Your task to perform on an android device: Go to accessibility settings Image 0: 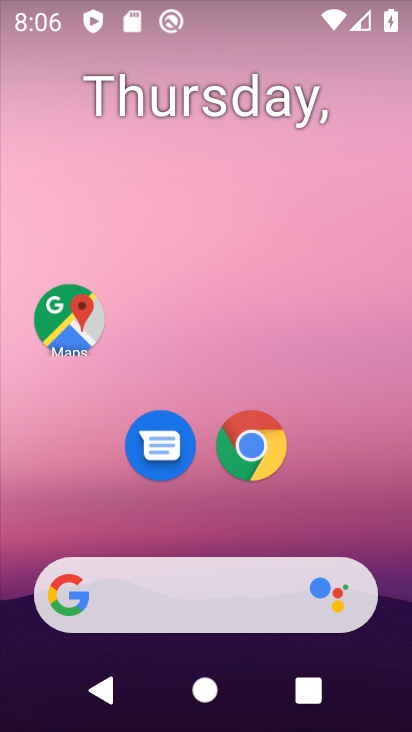
Step 0: drag from (357, 523) to (343, 0)
Your task to perform on an android device: Go to accessibility settings Image 1: 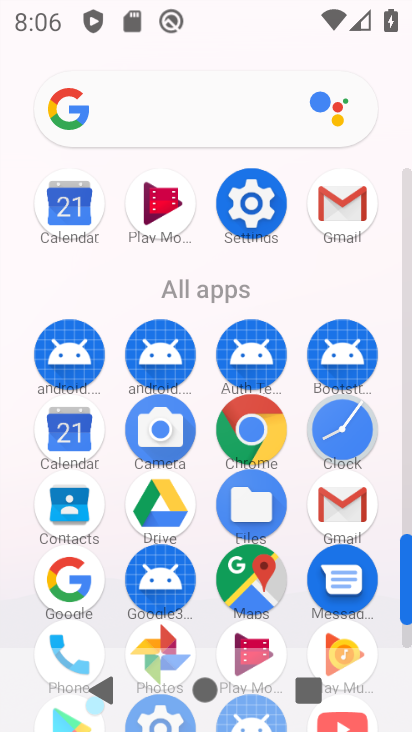
Step 1: click (252, 208)
Your task to perform on an android device: Go to accessibility settings Image 2: 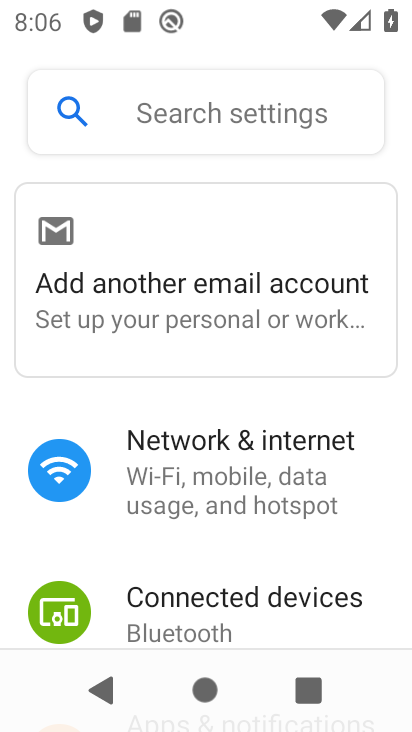
Step 2: drag from (364, 615) to (349, 171)
Your task to perform on an android device: Go to accessibility settings Image 3: 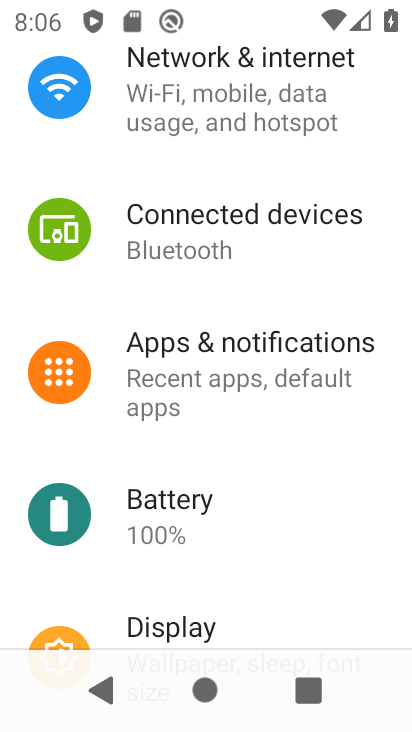
Step 3: drag from (326, 506) to (301, 70)
Your task to perform on an android device: Go to accessibility settings Image 4: 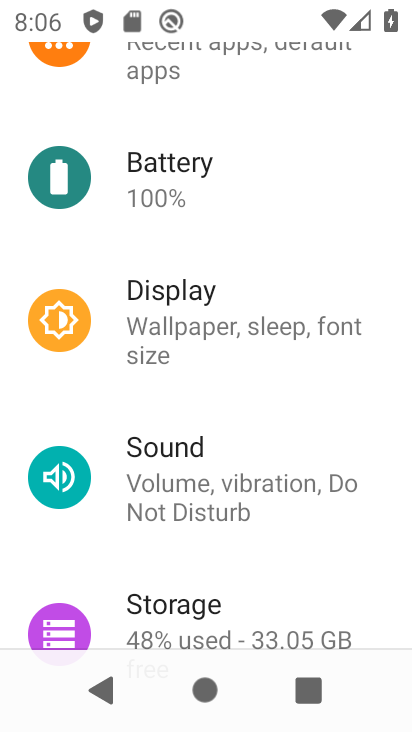
Step 4: drag from (298, 462) to (288, 74)
Your task to perform on an android device: Go to accessibility settings Image 5: 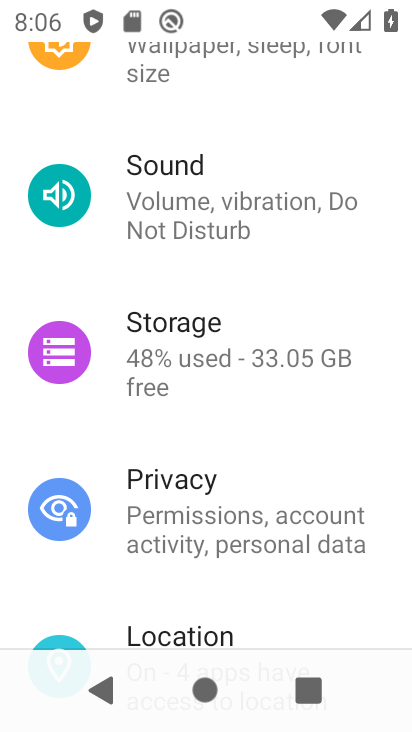
Step 5: drag from (265, 412) to (255, 42)
Your task to perform on an android device: Go to accessibility settings Image 6: 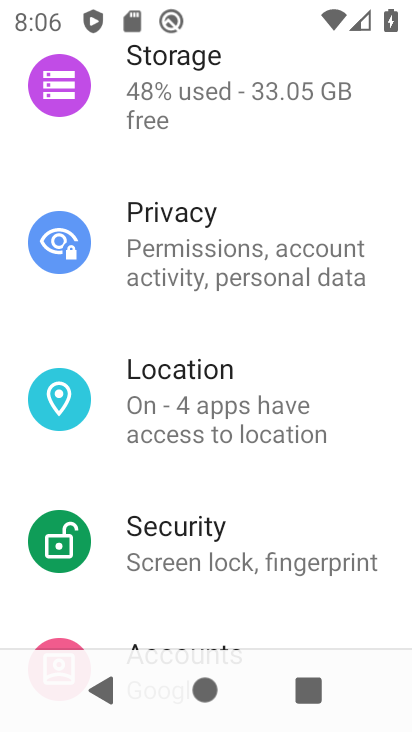
Step 6: drag from (281, 447) to (260, 73)
Your task to perform on an android device: Go to accessibility settings Image 7: 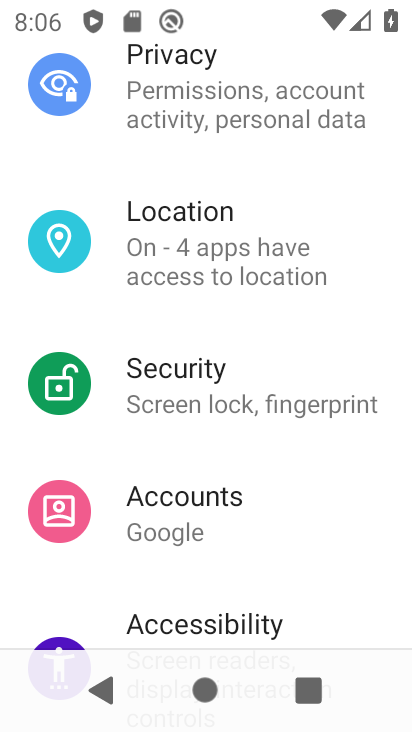
Step 7: drag from (276, 491) to (260, 111)
Your task to perform on an android device: Go to accessibility settings Image 8: 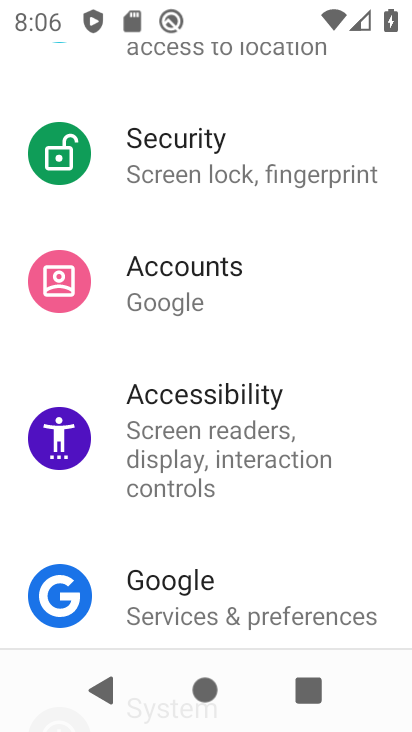
Step 8: click (179, 425)
Your task to perform on an android device: Go to accessibility settings Image 9: 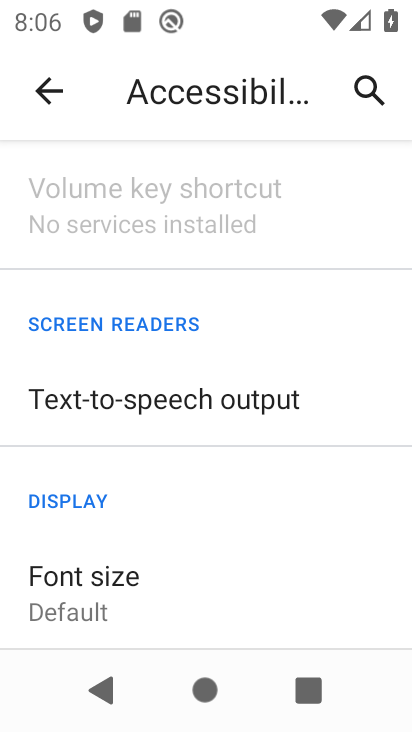
Step 9: task complete